Your task to perform on an android device: turn off notifications settings in the gmail app Image 0: 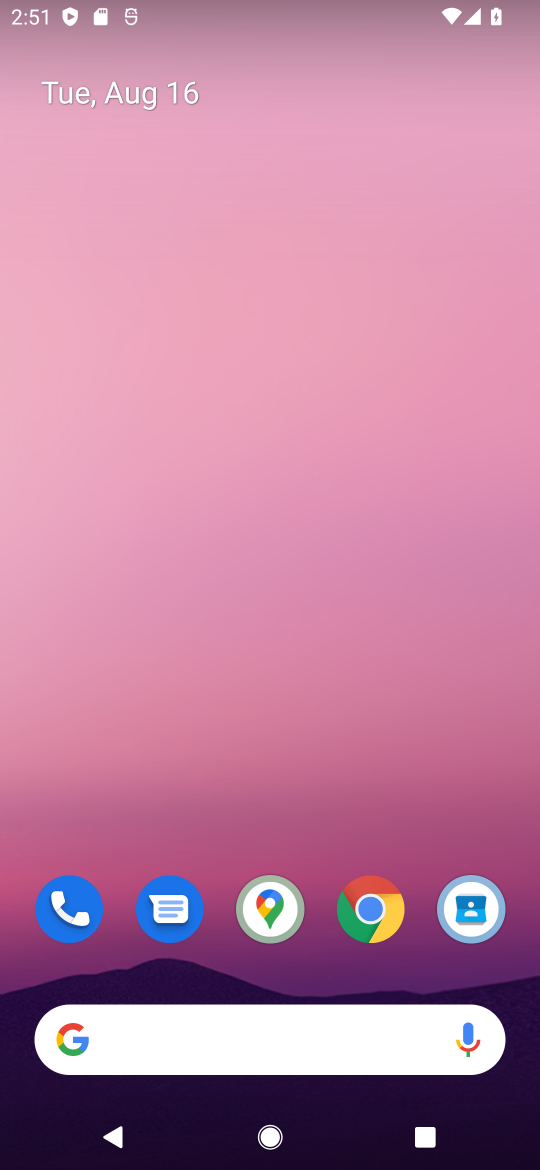
Step 0: drag from (306, 95) to (407, 168)
Your task to perform on an android device: turn off notifications settings in the gmail app Image 1: 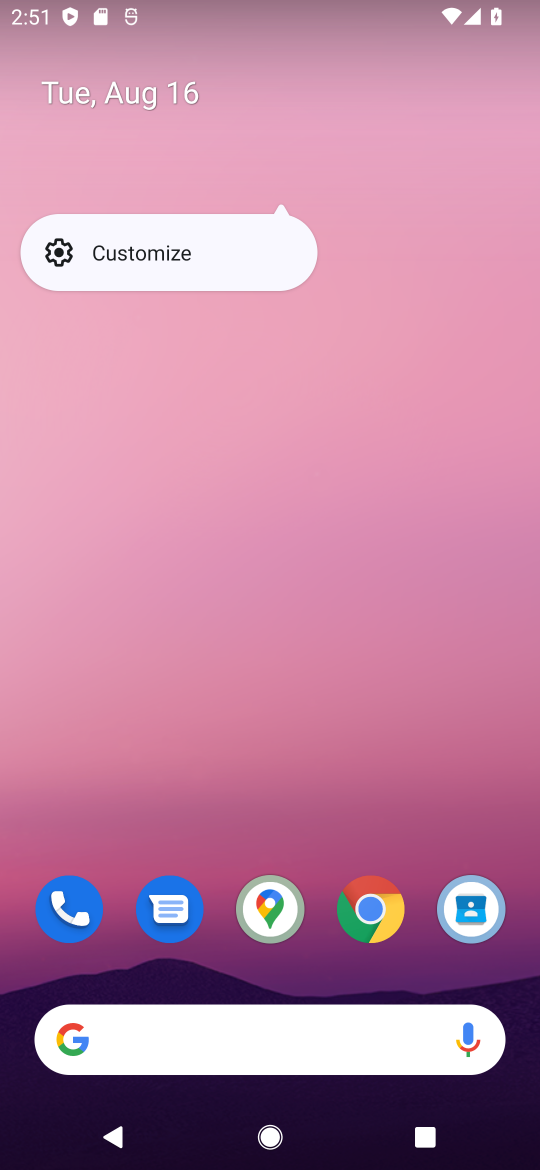
Step 1: drag from (308, 846) to (299, 278)
Your task to perform on an android device: turn off notifications settings in the gmail app Image 2: 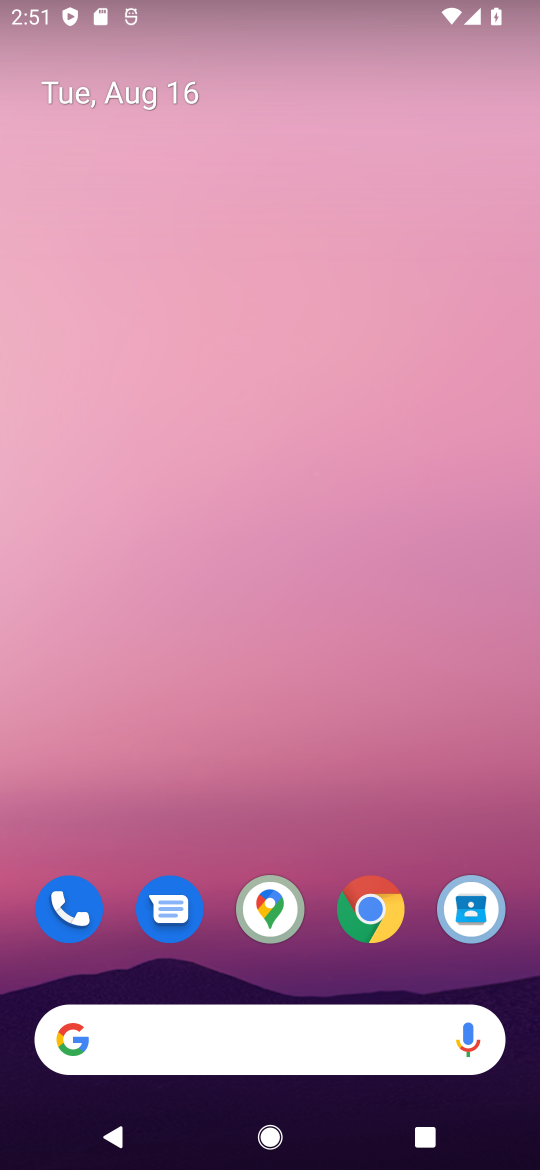
Step 2: click (333, 78)
Your task to perform on an android device: turn off notifications settings in the gmail app Image 3: 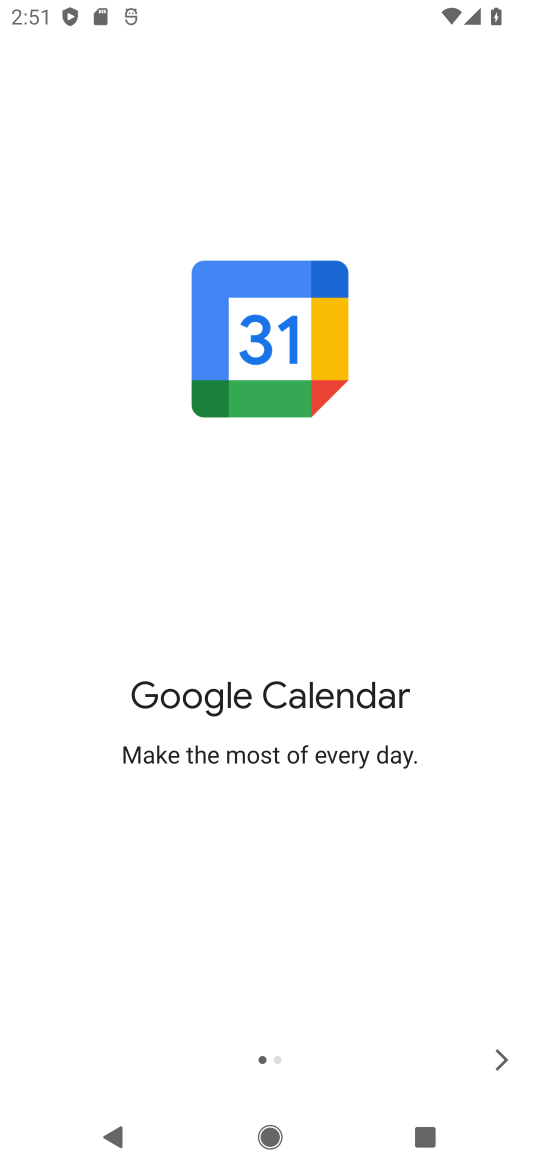
Step 3: click (501, 1063)
Your task to perform on an android device: turn off notifications settings in the gmail app Image 4: 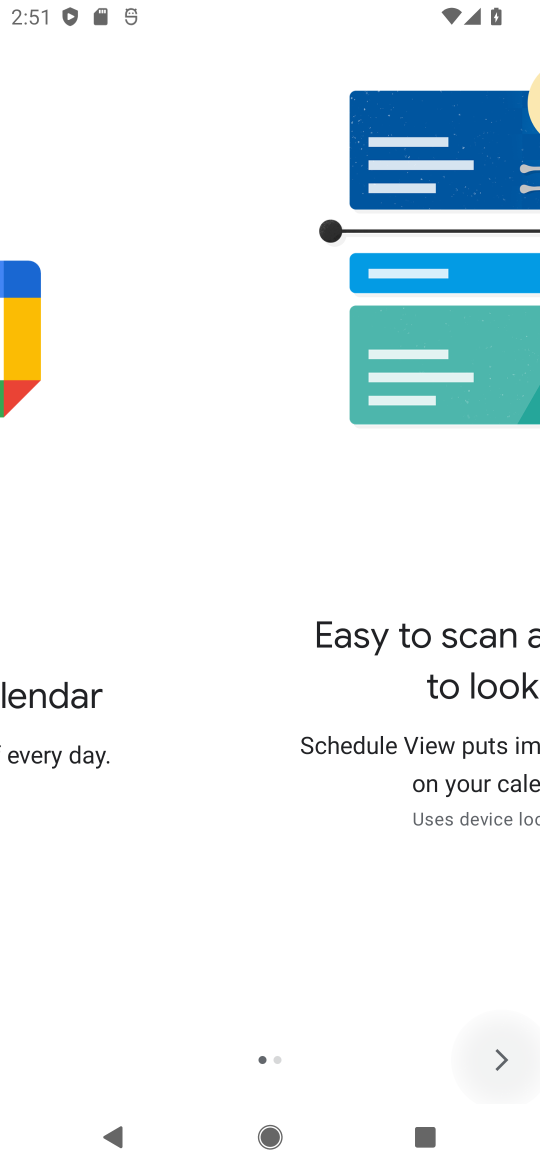
Step 4: click (501, 1063)
Your task to perform on an android device: turn off notifications settings in the gmail app Image 5: 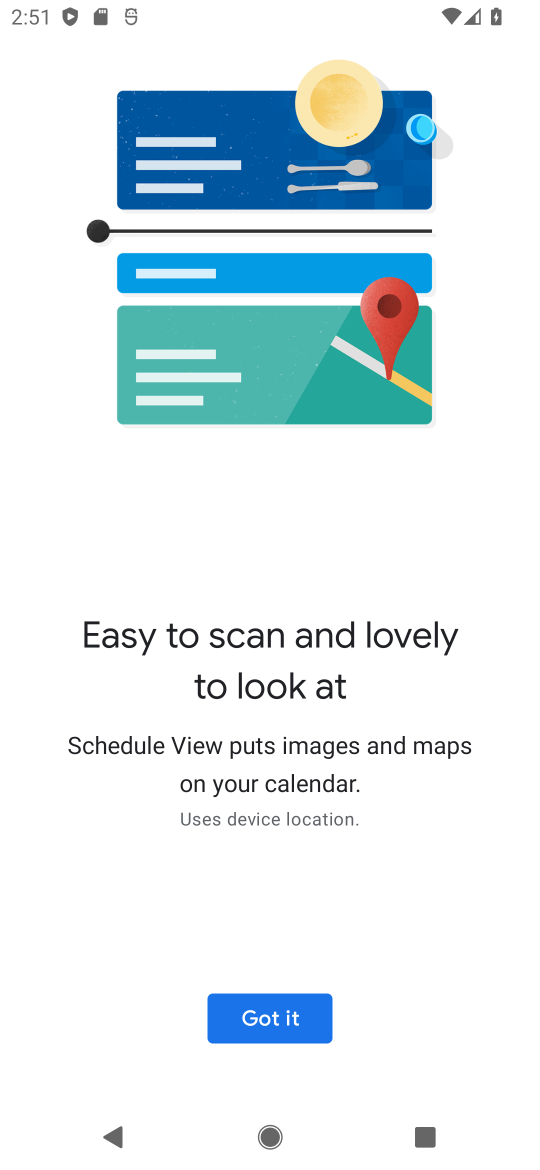
Step 5: click (246, 1007)
Your task to perform on an android device: turn off notifications settings in the gmail app Image 6: 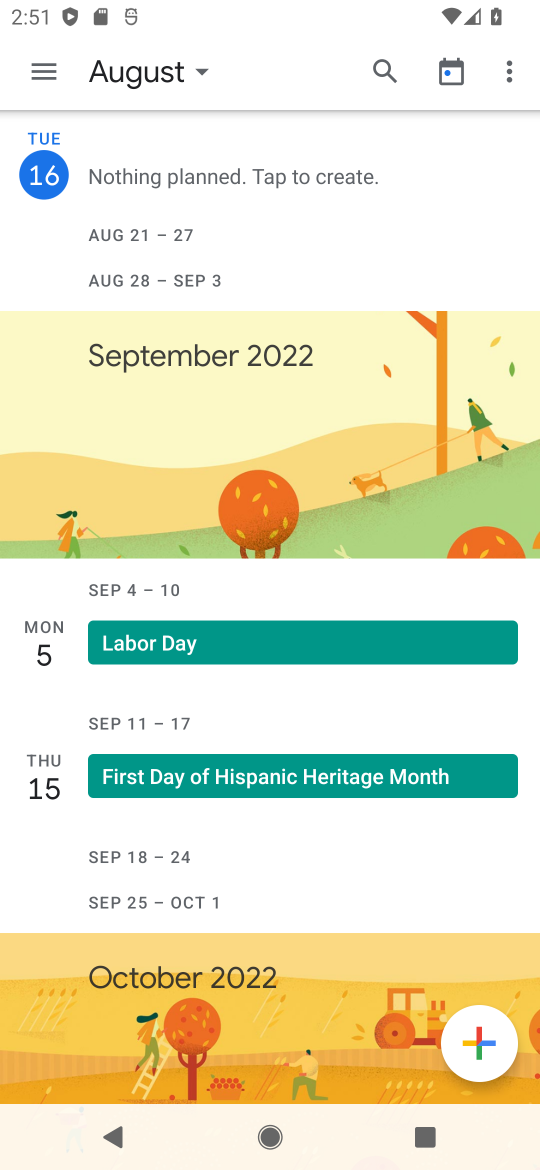
Step 6: press home button
Your task to perform on an android device: turn off notifications settings in the gmail app Image 7: 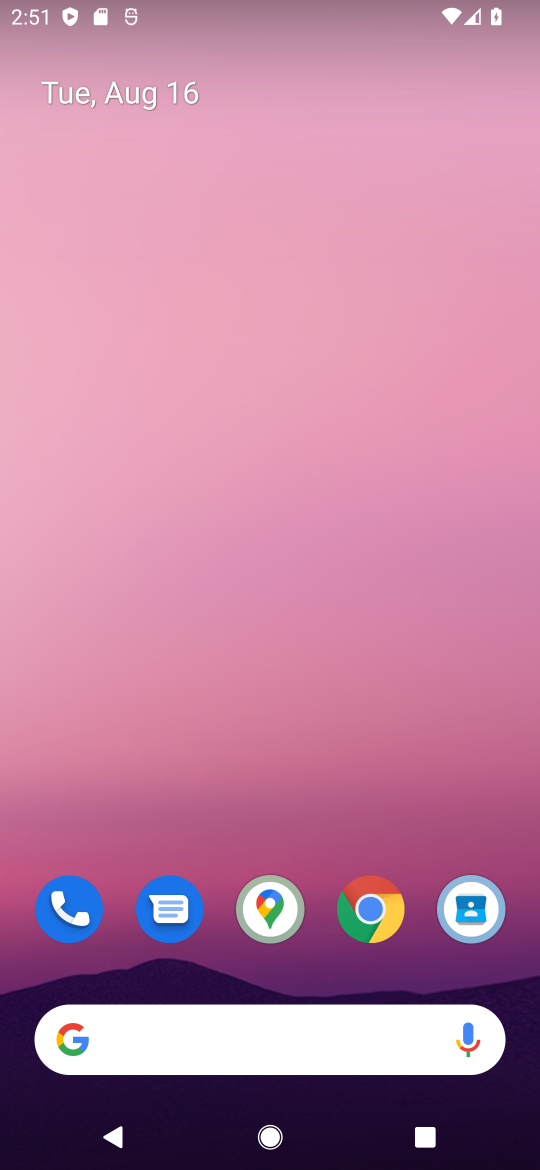
Step 7: drag from (290, 898) to (348, 172)
Your task to perform on an android device: turn off notifications settings in the gmail app Image 8: 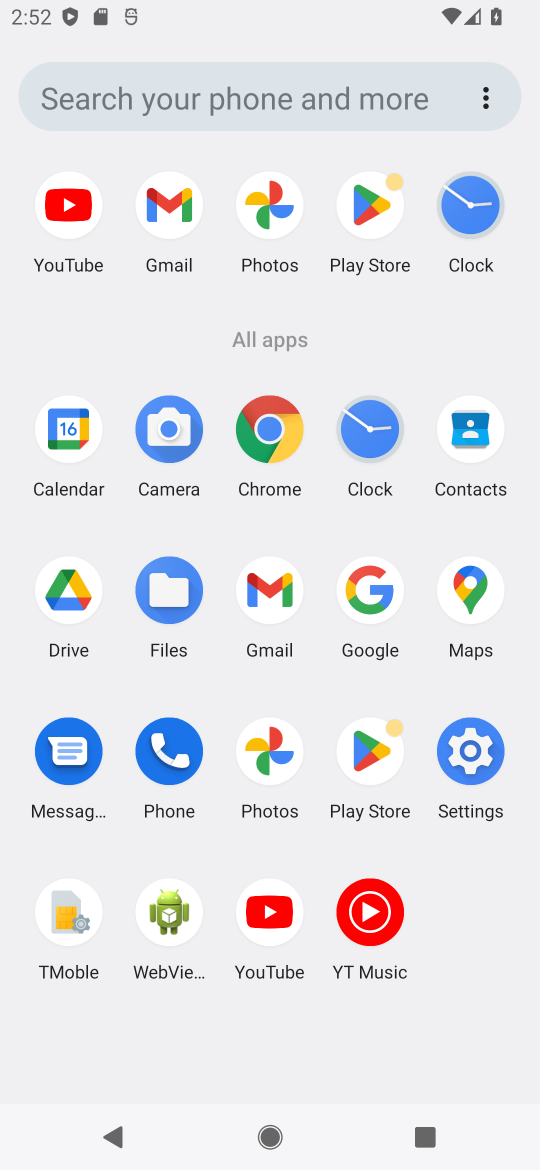
Step 8: click (263, 594)
Your task to perform on an android device: turn off notifications settings in the gmail app Image 9: 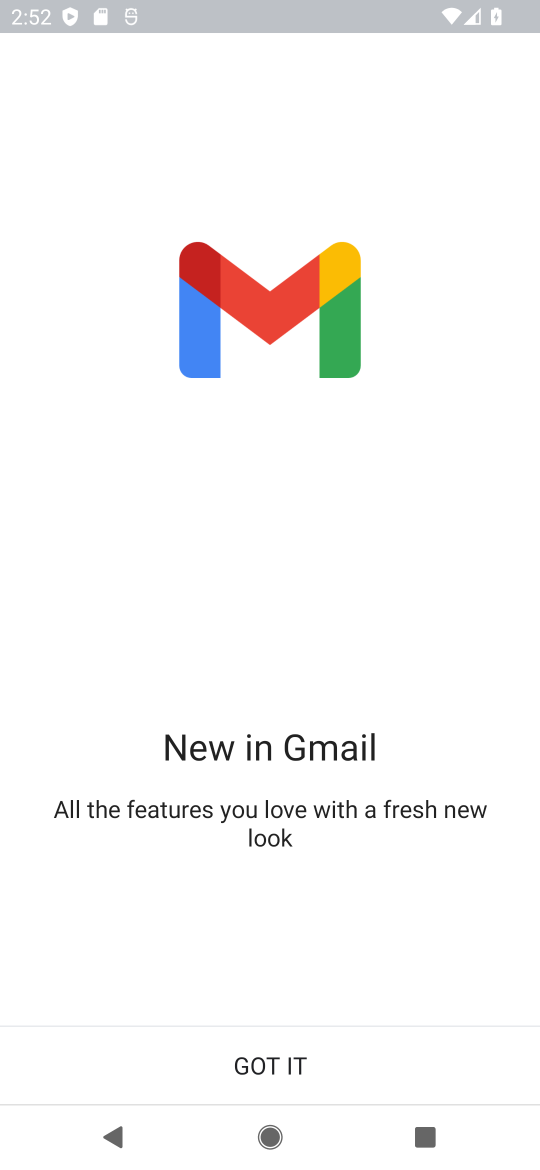
Step 9: click (287, 1083)
Your task to perform on an android device: turn off notifications settings in the gmail app Image 10: 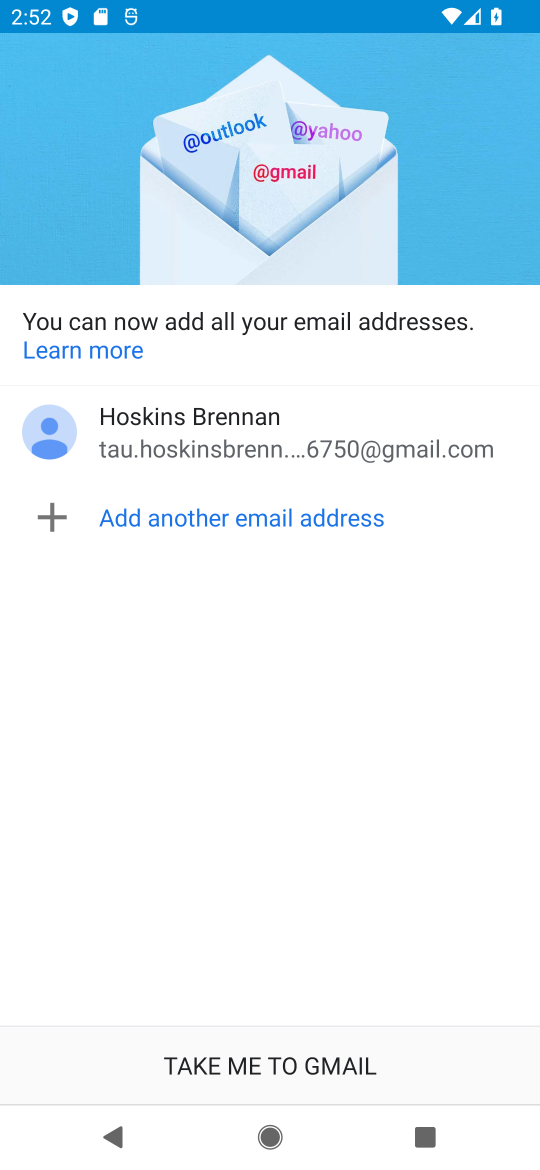
Step 10: click (287, 1083)
Your task to perform on an android device: turn off notifications settings in the gmail app Image 11: 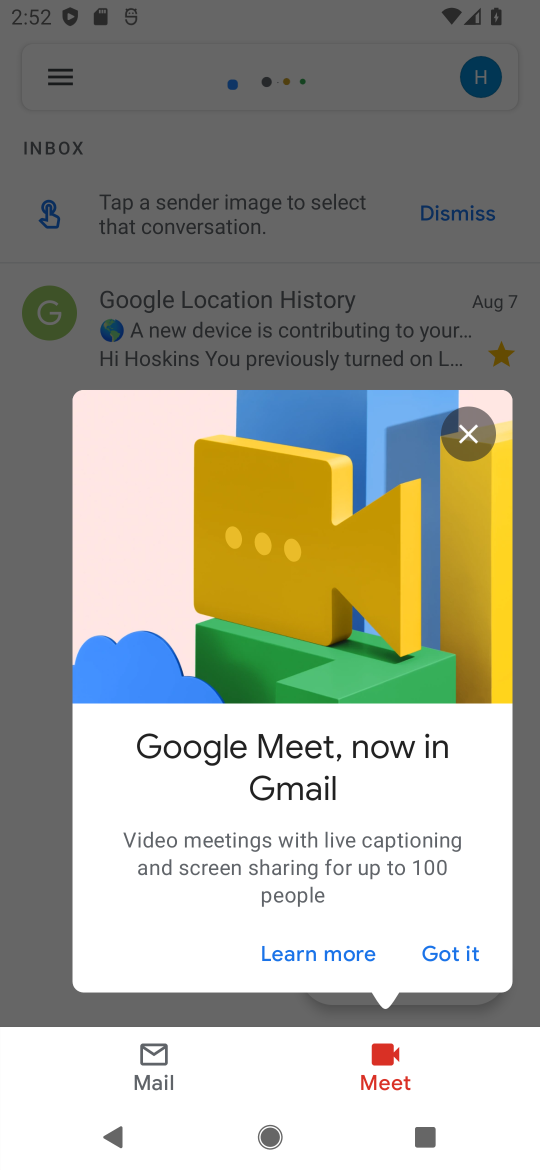
Step 11: click (50, 70)
Your task to perform on an android device: turn off notifications settings in the gmail app Image 12: 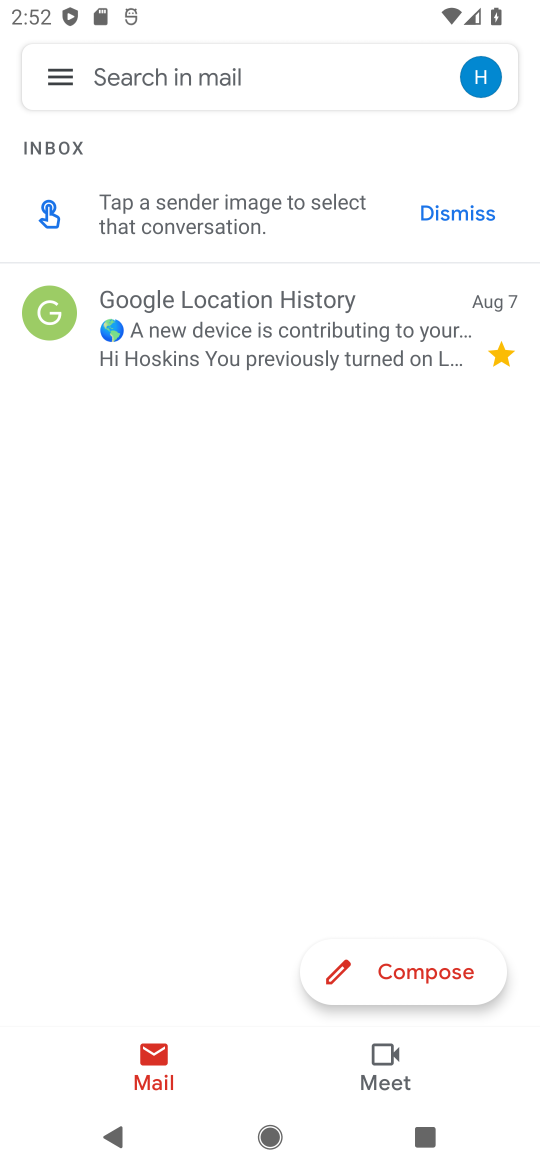
Step 12: click (66, 75)
Your task to perform on an android device: turn off notifications settings in the gmail app Image 13: 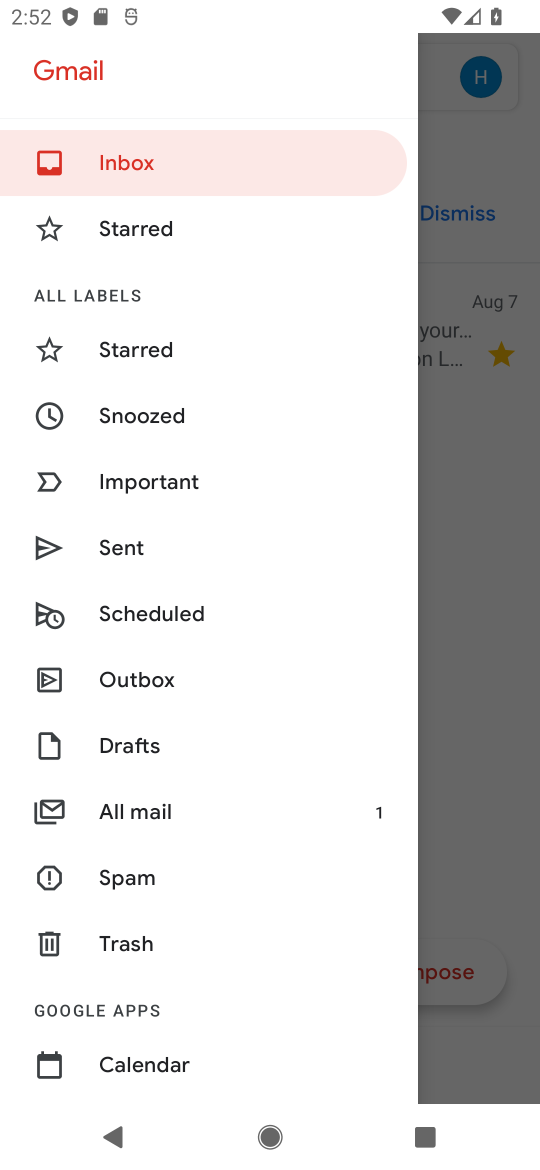
Step 13: click (196, 505)
Your task to perform on an android device: turn off notifications settings in the gmail app Image 14: 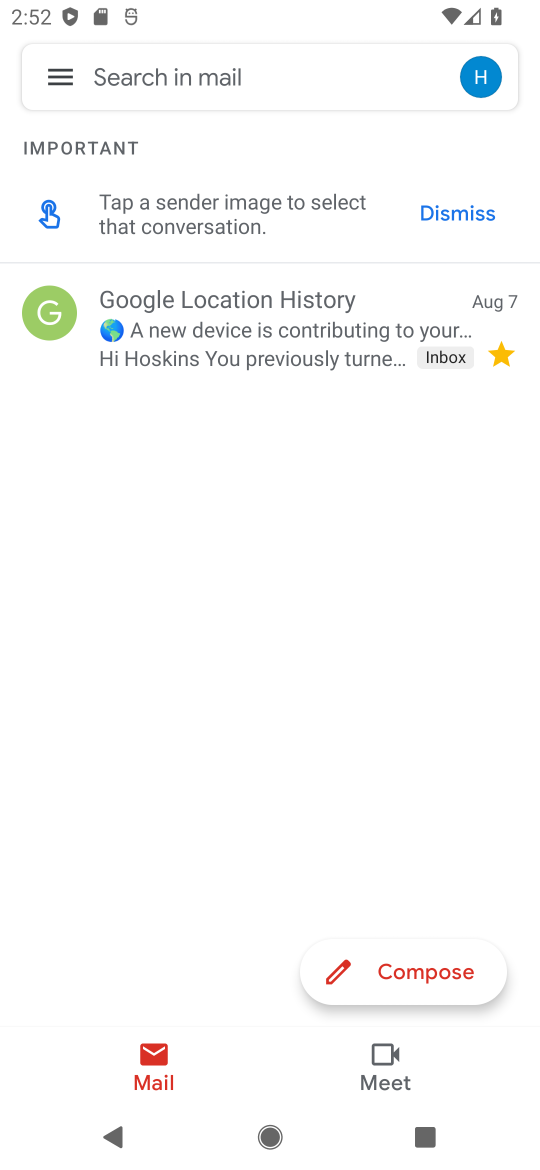
Step 14: click (54, 76)
Your task to perform on an android device: turn off notifications settings in the gmail app Image 15: 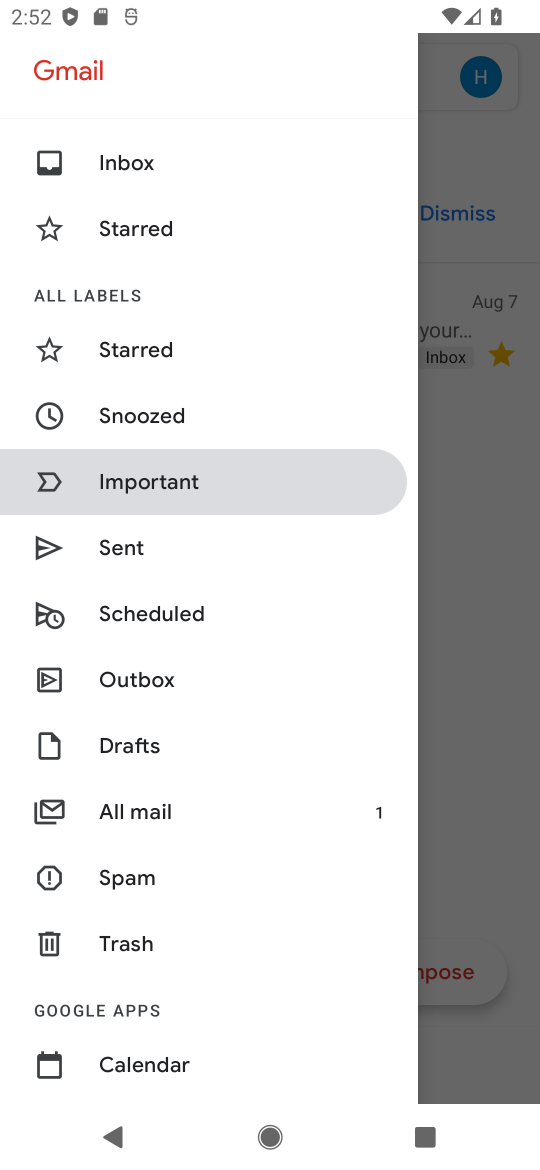
Step 15: drag from (132, 962) to (226, 191)
Your task to perform on an android device: turn off notifications settings in the gmail app Image 16: 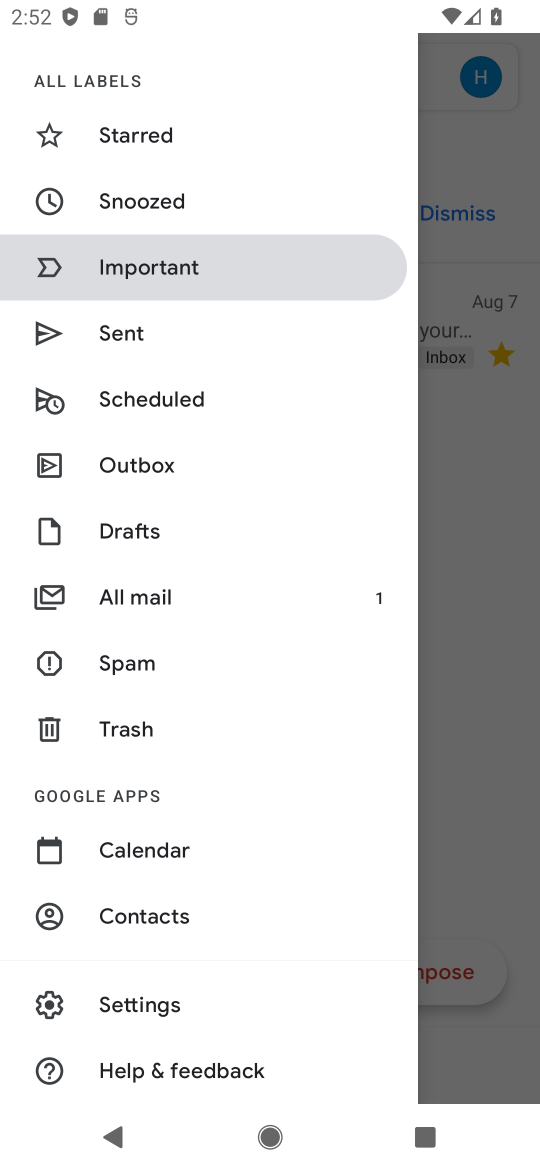
Step 16: click (133, 1010)
Your task to perform on an android device: turn off notifications settings in the gmail app Image 17: 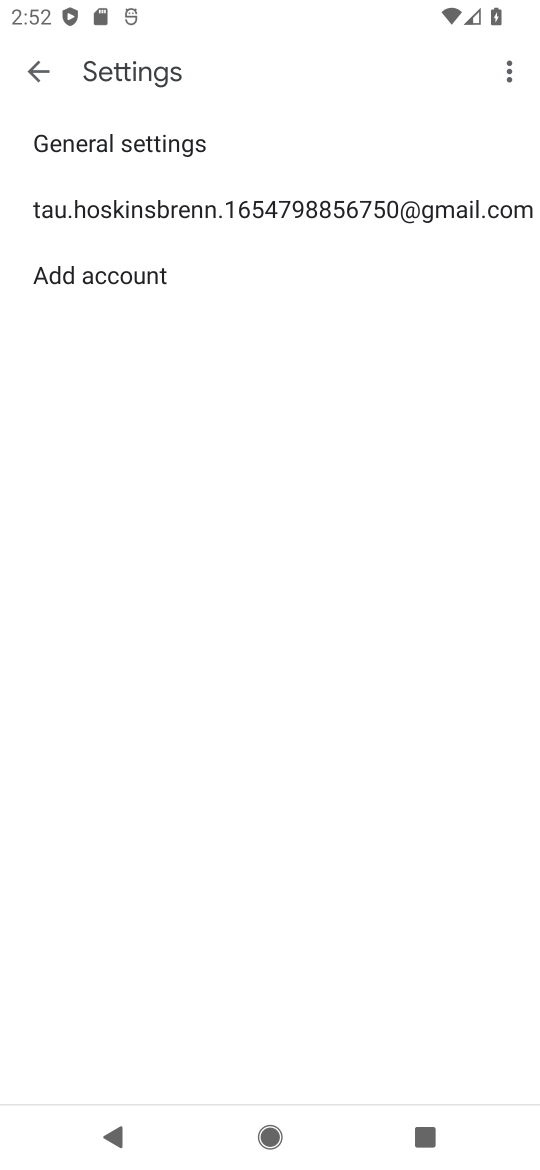
Step 17: click (122, 207)
Your task to perform on an android device: turn off notifications settings in the gmail app Image 18: 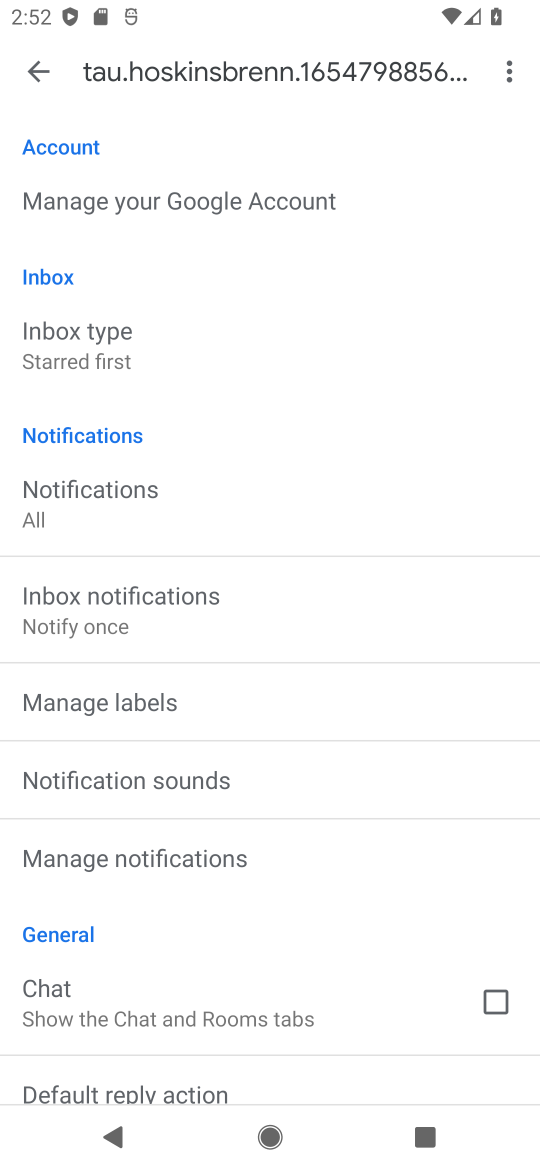
Step 18: click (130, 869)
Your task to perform on an android device: turn off notifications settings in the gmail app Image 19: 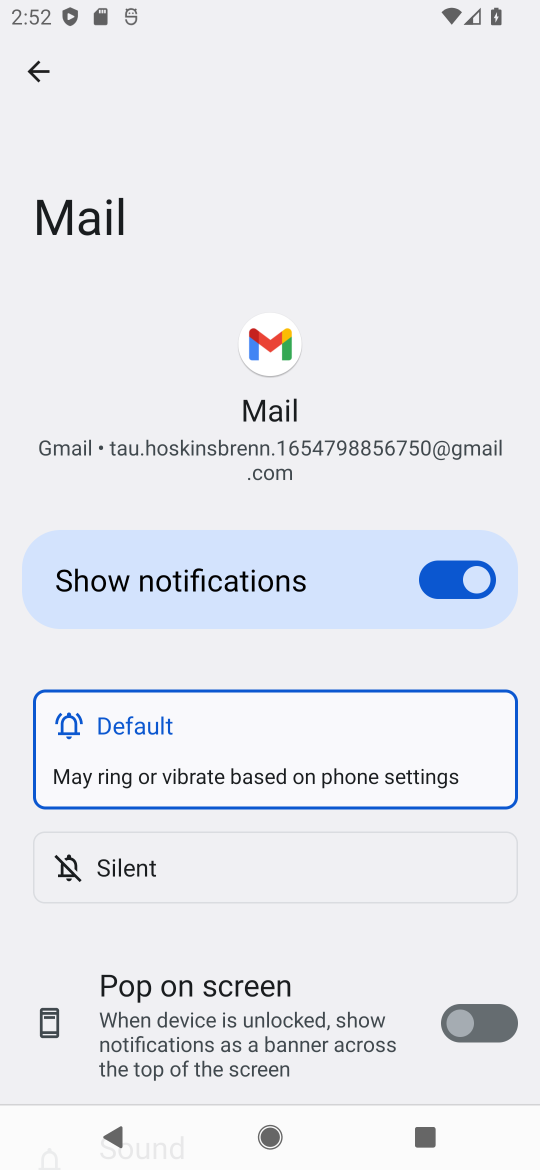
Step 19: click (449, 585)
Your task to perform on an android device: turn off notifications settings in the gmail app Image 20: 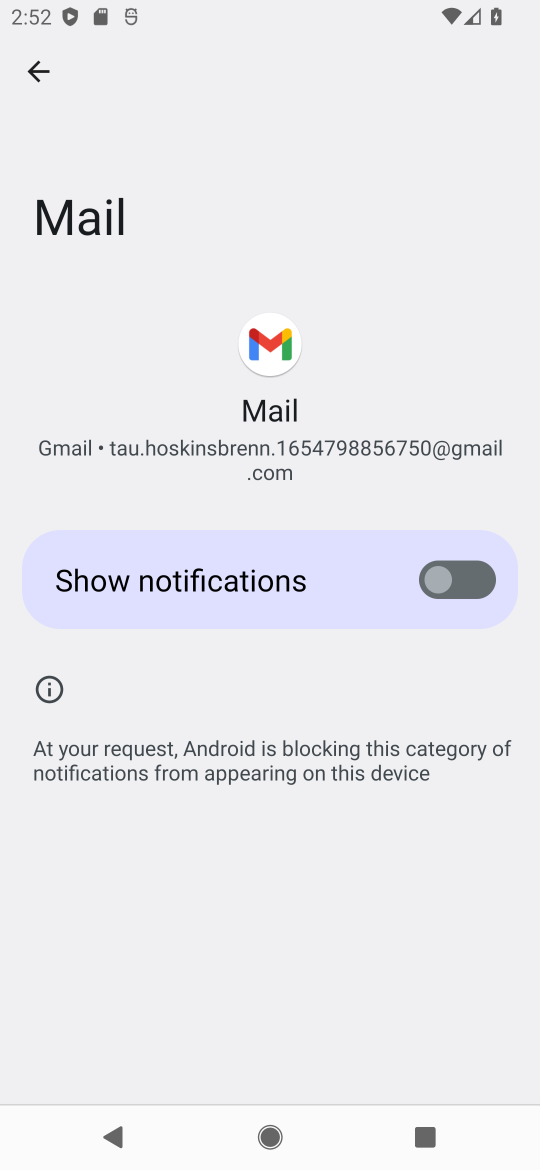
Step 20: task complete